Your task to perform on an android device: install app "TextNow: Call + Text Unlimited" Image 0: 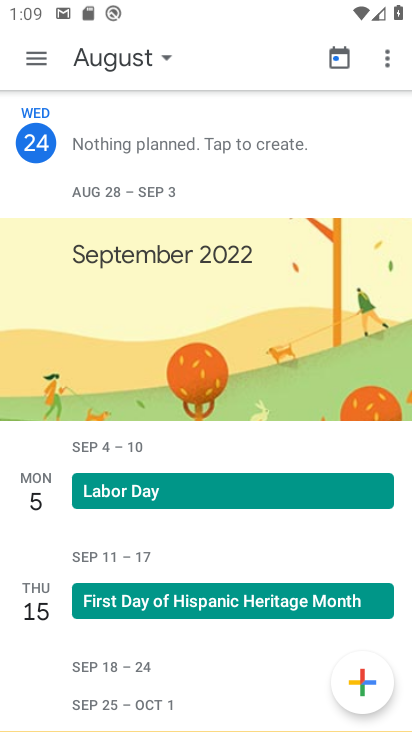
Step 0: press home button
Your task to perform on an android device: install app "TextNow: Call + Text Unlimited" Image 1: 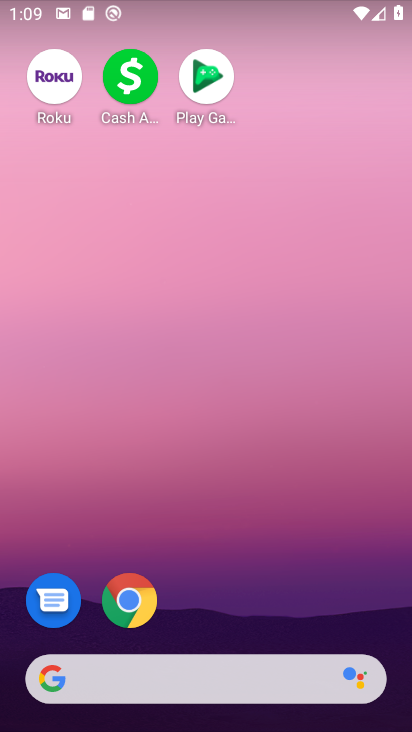
Step 1: task complete